Your task to perform on an android device: turn off notifications settings in the gmail app Image 0: 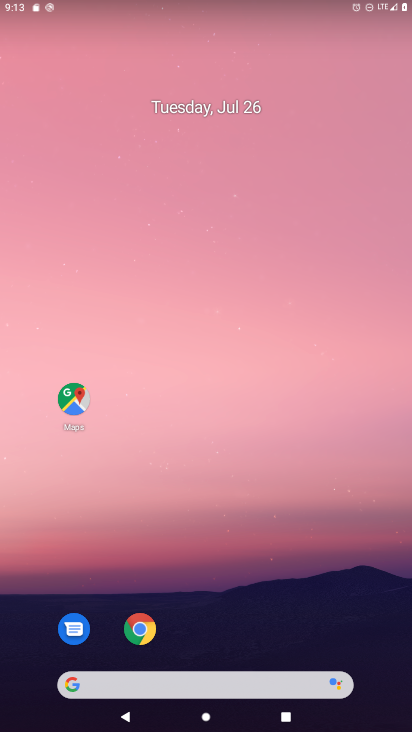
Step 0: drag from (231, 625) to (112, 166)
Your task to perform on an android device: turn off notifications settings in the gmail app Image 1: 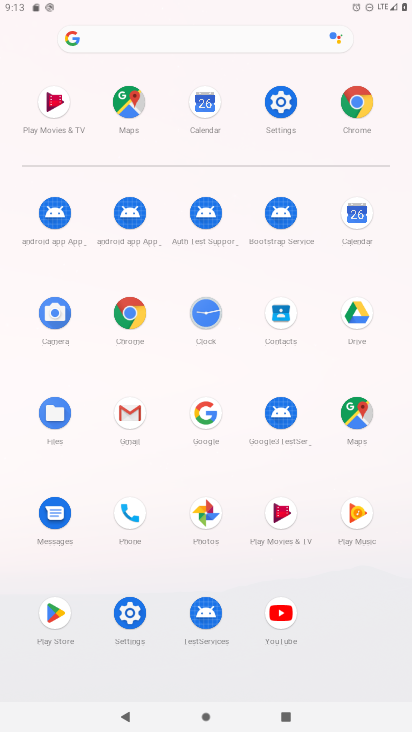
Step 1: click (137, 460)
Your task to perform on an android device: turn off notifications settings in the gmail app Image 2: 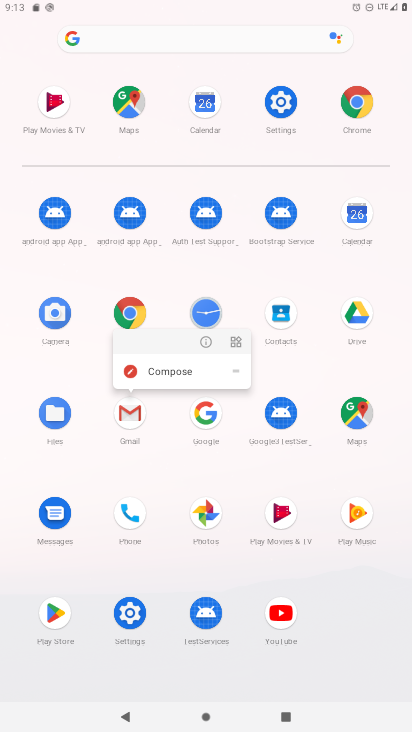
Step 2: click (127, 436)
Your task to perform on an android device: turn off notifications settings in the gmail app Image 3: 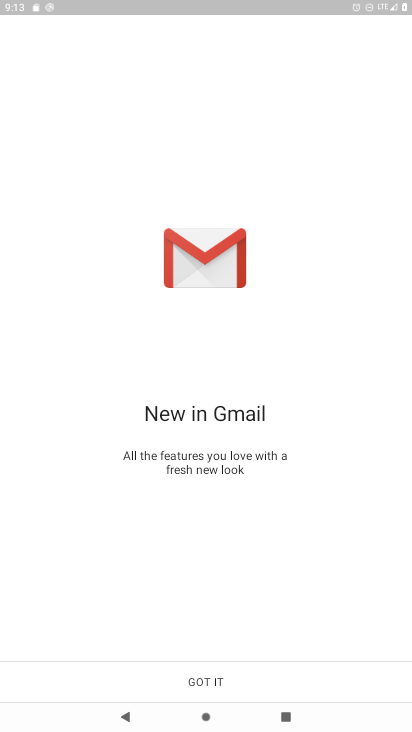
Step 3: click (223, 685)
Your task to perform on an android device: turn off notifications settings in the gmail app Image 4: 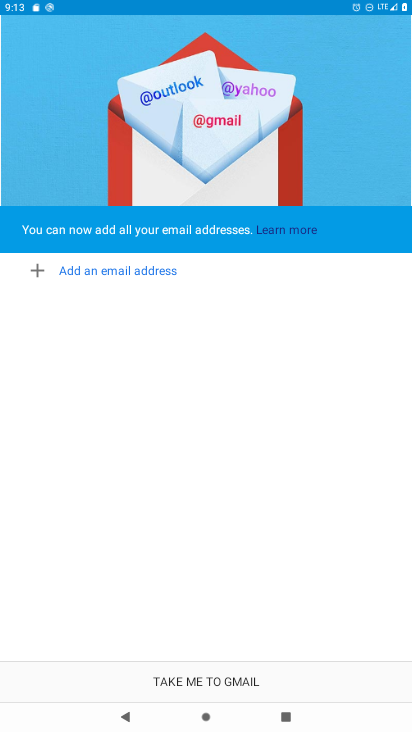
Step 4: task complete